Your task to perform on an android device: Find coffee shops on Maps Image 0: 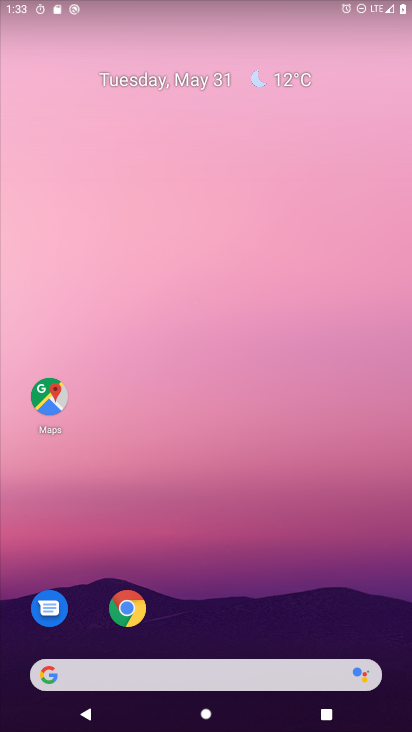
Step 0: click (47, 392)
Your task to perform on an android device: Find coffee shops on Maps Image 1: 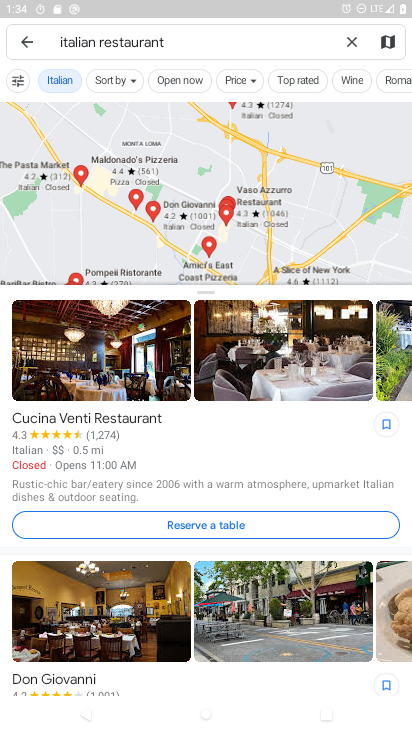
Step 1: click (347, 43)
Your task to perform on an android device: Find coffee shops on Maps Image 2: 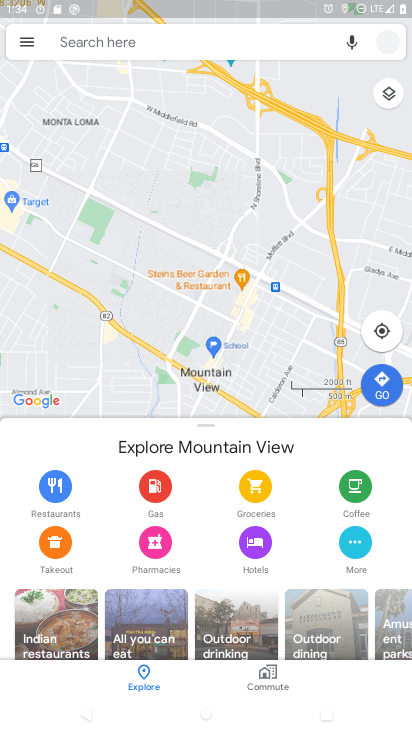
Step 2: click (98, 45)
Your task to perform on an android device: Find coffee shops on Maps Image 3: 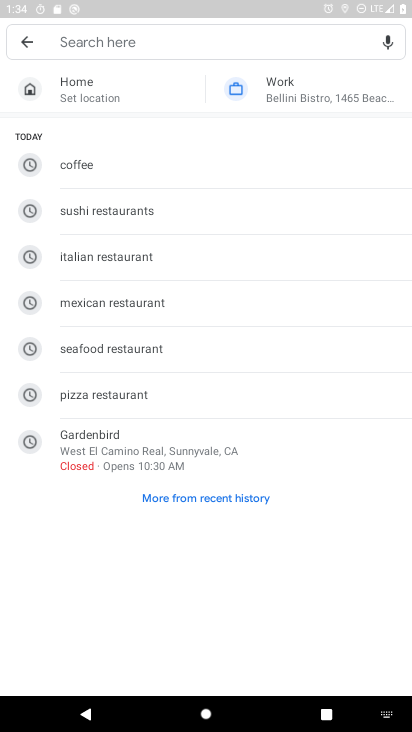
Step 3: type "coffee shops"
Your task to perform on an android device: Find coffee shops on Maps Image 4: 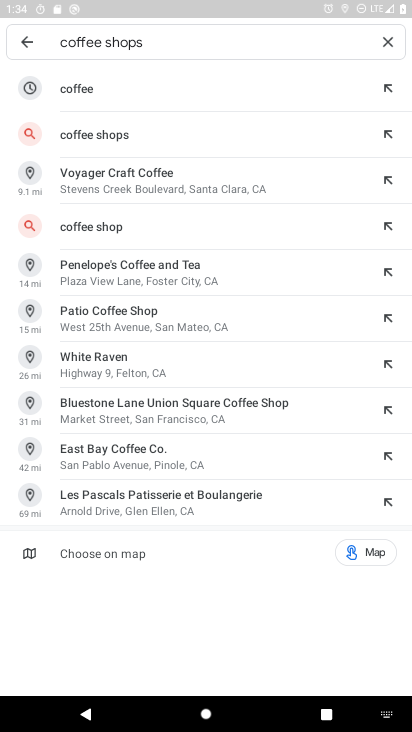
Step 4: click (109, 136)
Your task to perform on an android device: Find coffee shops on Maps Image 5: 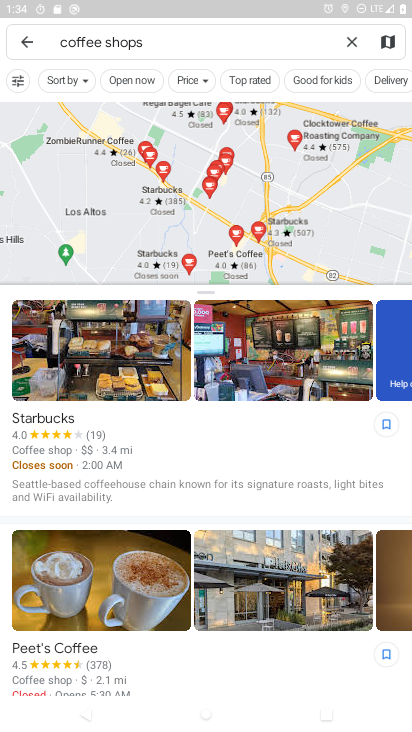
Step 5: task complete